Your task to perform on an android device: Go to CNN.com Image 0: 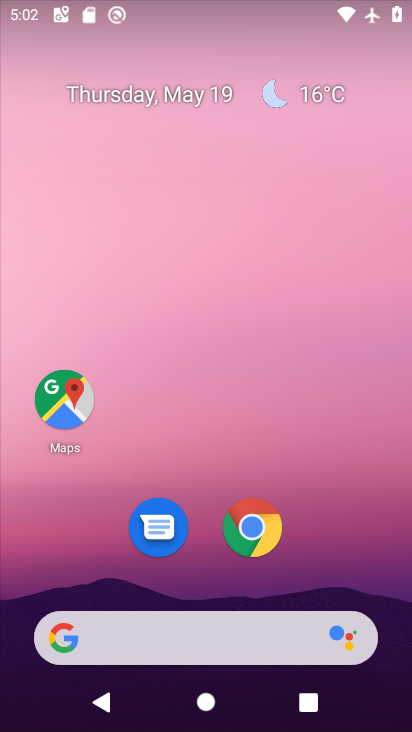
Step 0: click (258, 525)
Your task to perform on an android device: Go to CNN.com Image 1: 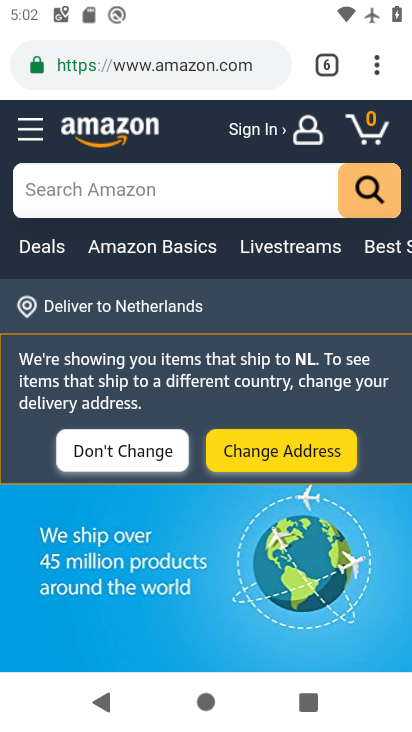
Step 1: click (325, 65)
Your task to perform on an android device: Go to CNN.com Image 2: 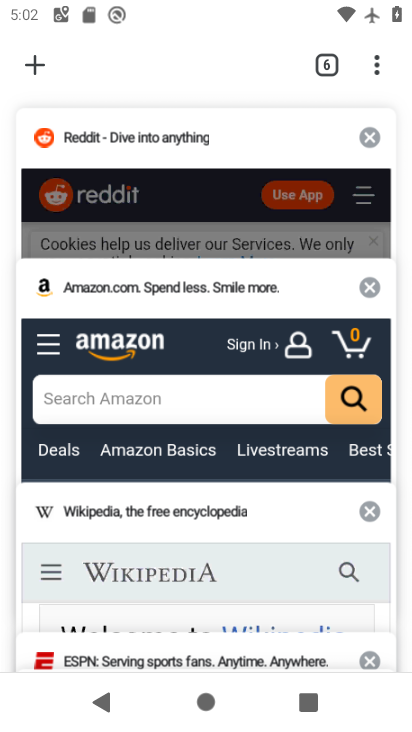
Step 2: drag from (188, 446) to (191, 174)
Your task to perform on an android device: Go to CNN.com Image 3: 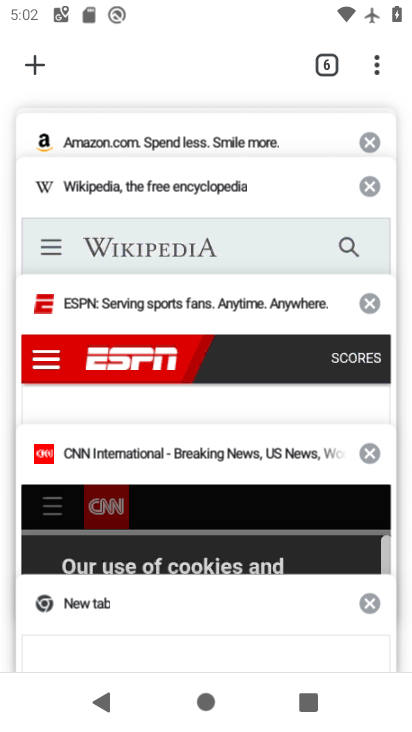
Step 3: click (158, 455)
Your task to perform on an android device: Go to CNN.com Image 4: 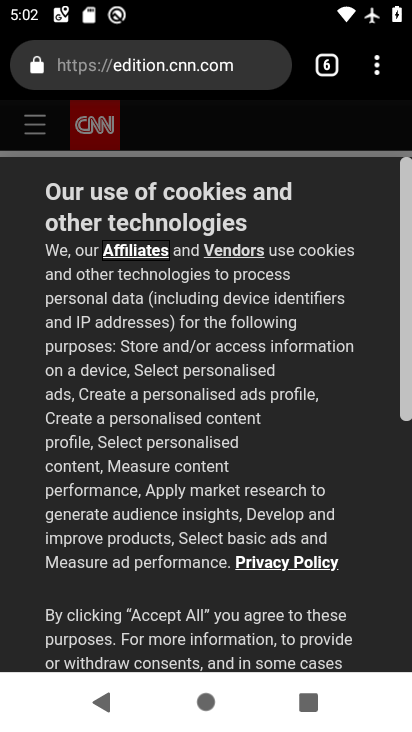
Step 4: task complete